Your task to perform on an android device: check the backup settings in the google photos Image 0: 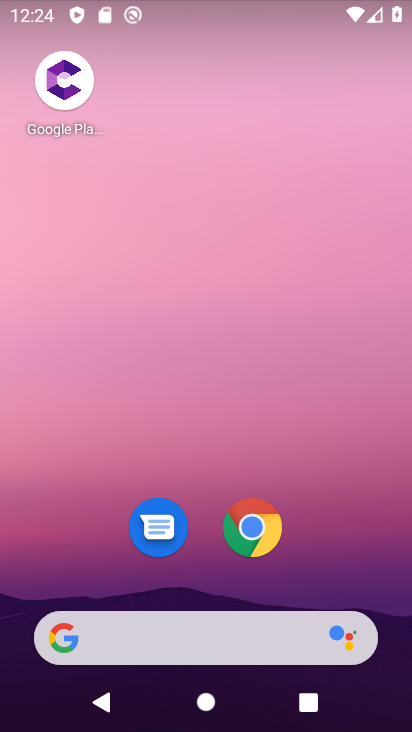
Step 0: drag from (390, 686) to (375, 245)
Your task to perform on an android device: check the backup settings in the google photos Image 1: 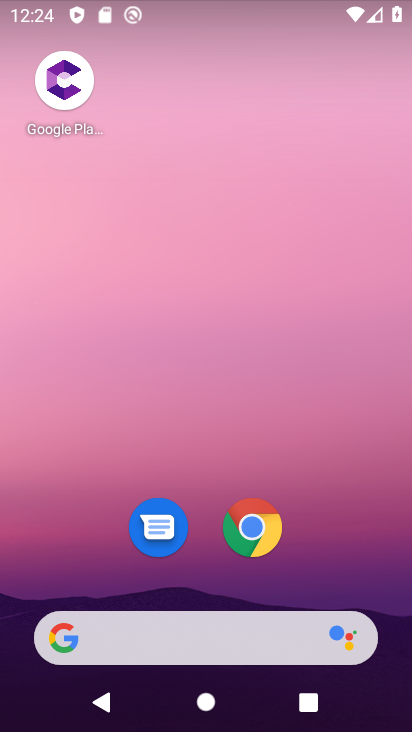
Step 1: drag from (393, 696) to (395, 379)
Your task to perform on an android device: check the backup settings in the google photos Image 2: 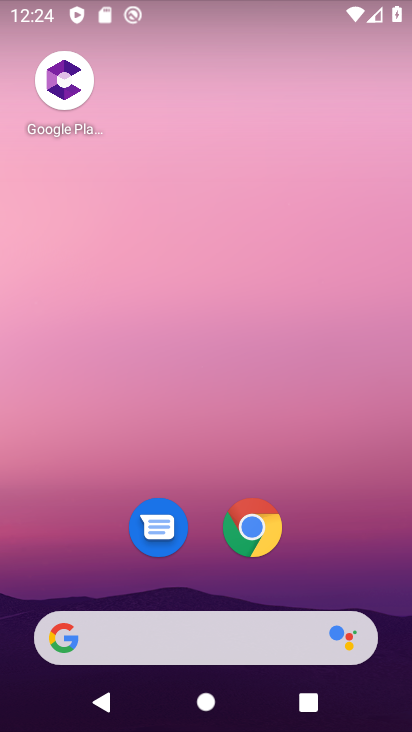
Step 2: drag from (387, 657) to (345, 264)
Your task to perform on an android device: check the backup settings in the google photos Image 3: 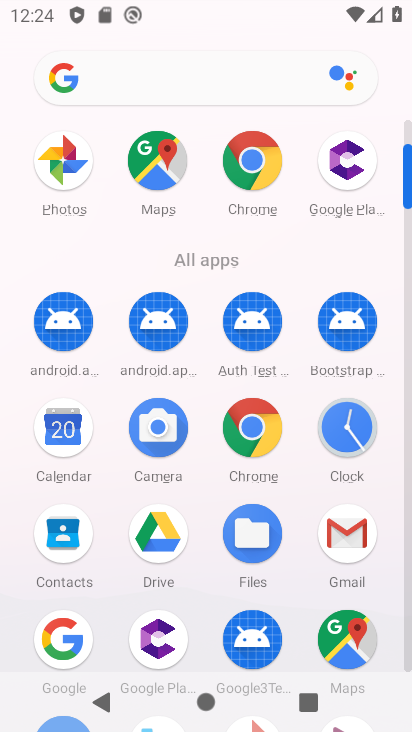
Step 3: click (56, 148)
Your task to perform on an android device: check the backup settings in the google photos Image 4: 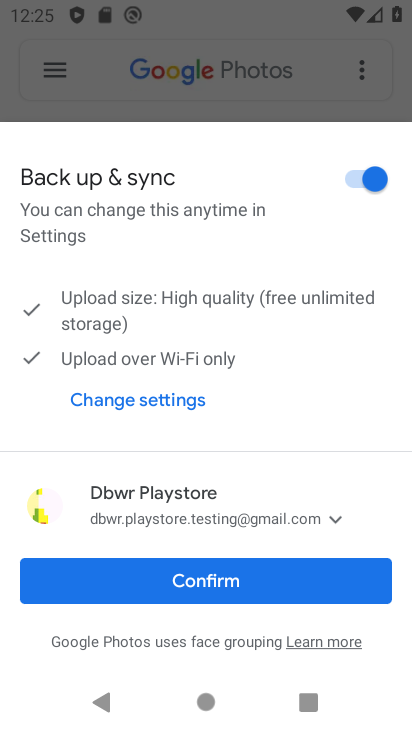
Step 4: click (220, 598)
Your task to perform on an android device: check the backup settings in the google photos Image 5: 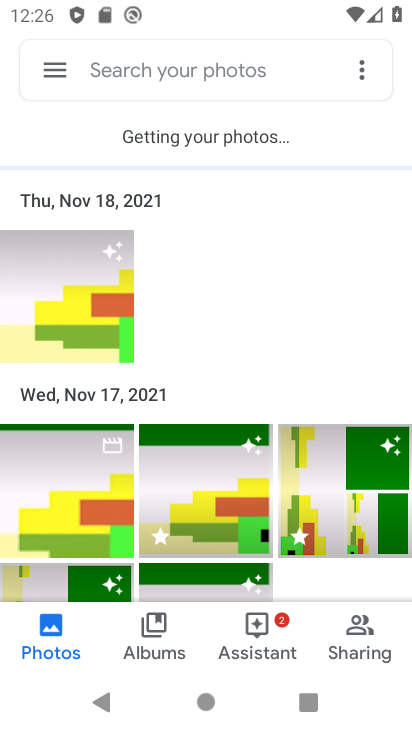
Step 5: click (52, 67)
Your task to perform on an android device: check the backup settings in the google photos Image 6: 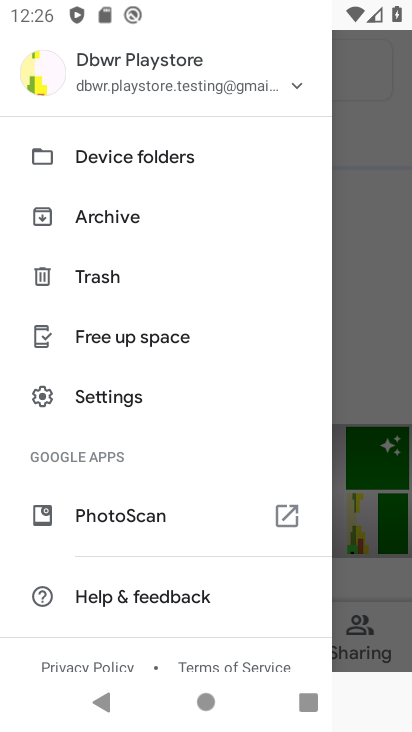
Step 6: drag from (199, 524) to (225, 351)
Your task to perform on an android device: check the backup settings in the google photos Image 7: 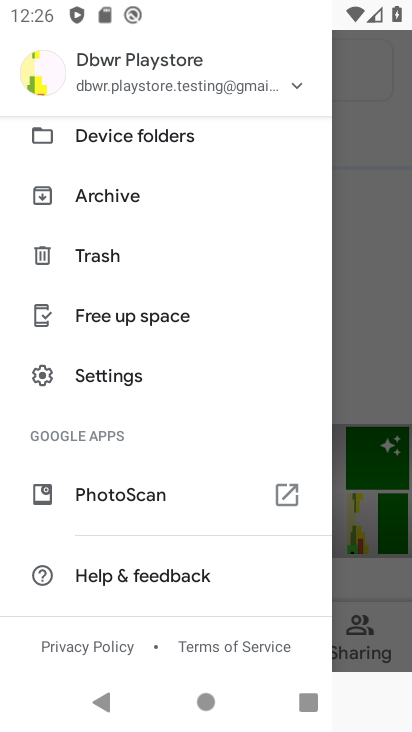
Step 7: click (98, 373)
Your task to perform on an android device: check the backup settings in the google photos Image 8: 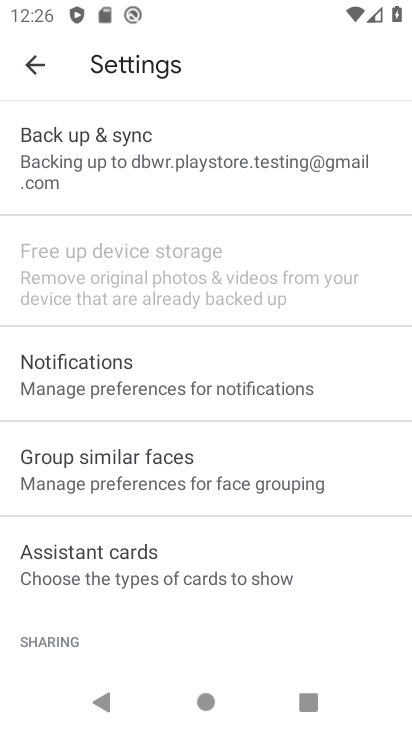
Step 8: click (123, 163)
Your task to perform on an android device: check the backup settings in the google photos Image 9: 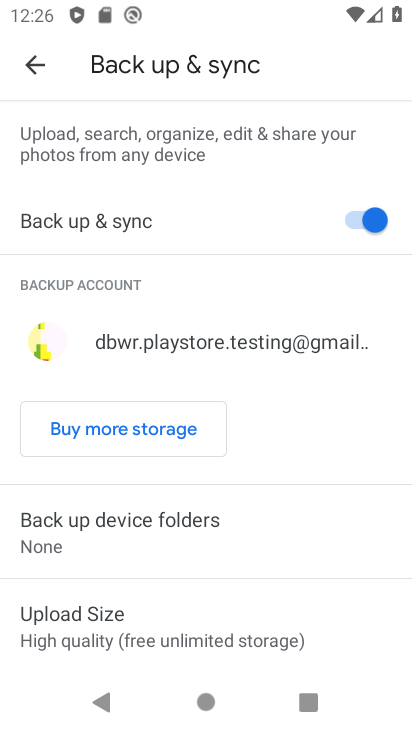
Step 9: task complete